Your task to perform on an android device: toggle location history Image 0: 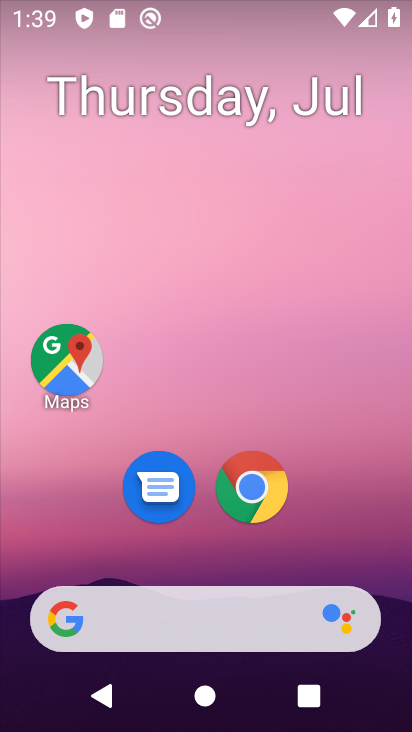
Step 0: click (244, 608)
Your task to perform on an android device: toggle location history Image 1: 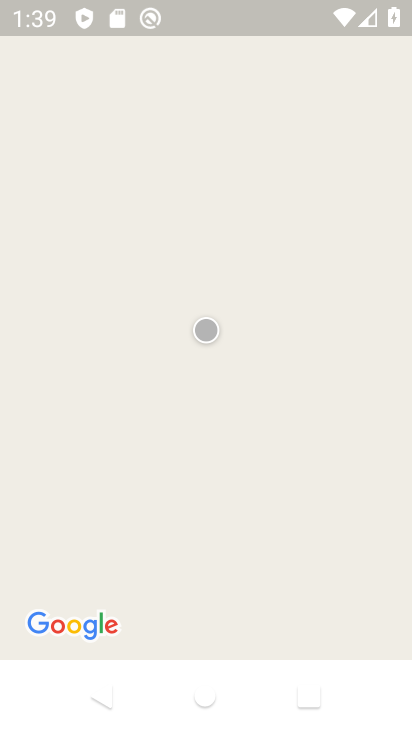
Step 1: press home button
Your task to perform on an android device: toggle location history Image 2: 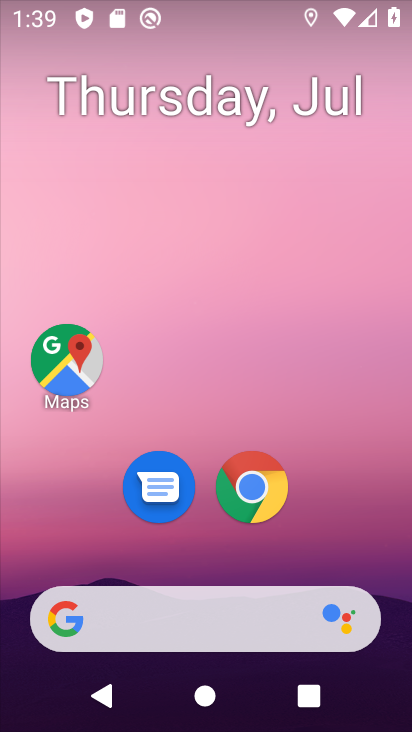
Step 2: drag from (381, 533) to (374, 36)
Your task to perform on an android device: toggle location history Image 3: 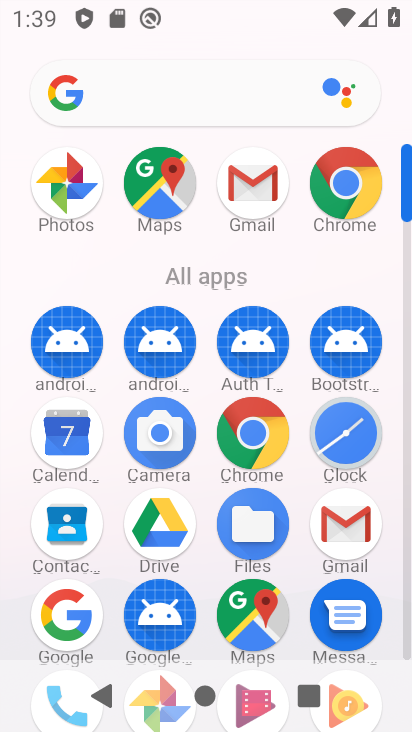
Step 3: drag from (387, 565) to (396, 264)
Your task to perform on an android device: toggle location history Image 4: 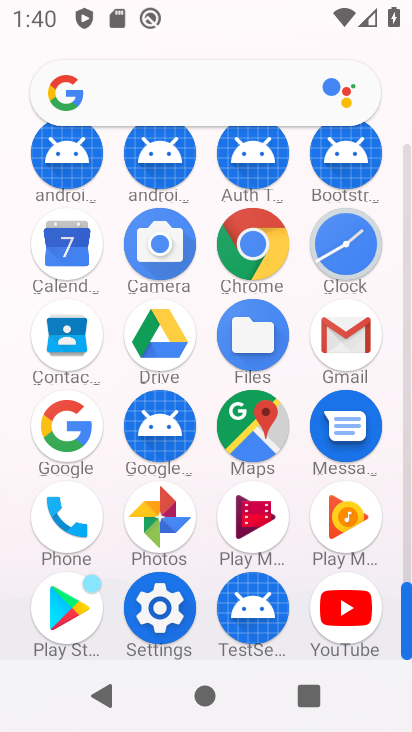
Step 4: click (164, 603)
Your task to perform on an android device: toggle location history Image 5: 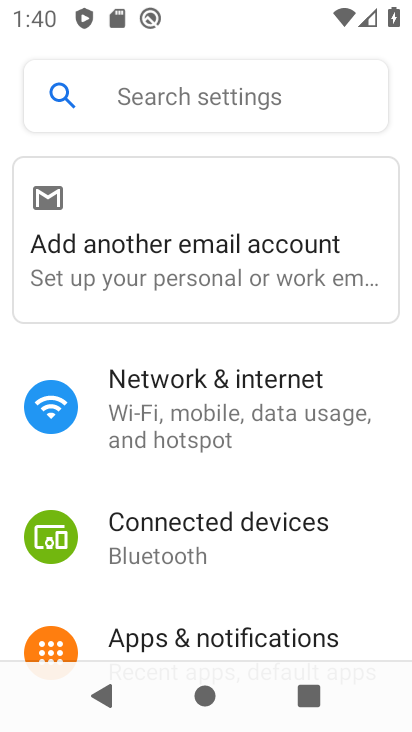
Step 5: drag from (379, 574) to (385, 351)
Your task to perform on an android device: toggle location history Image 6: 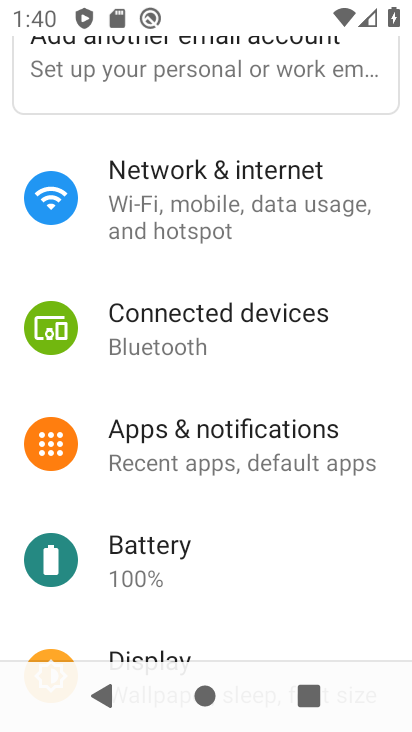
Step 6: drag from (341, 572) to (356, 324)
Your task to perform on an android device: toggle location history Image 7: 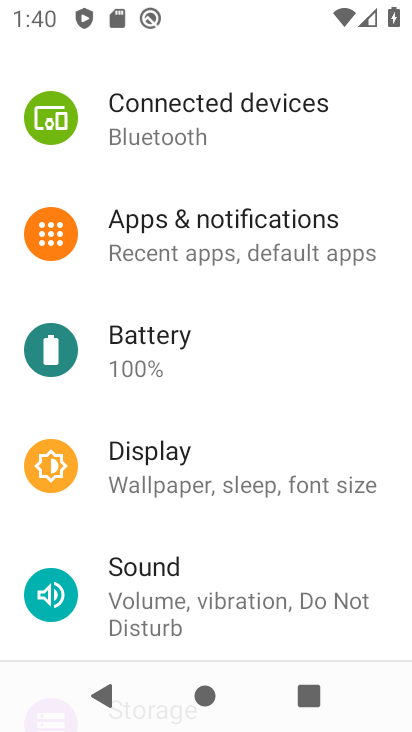
Step 7: drag from (355, 535) to (368, 246)
Your task to perform on an android device: toggle location history Image 8: 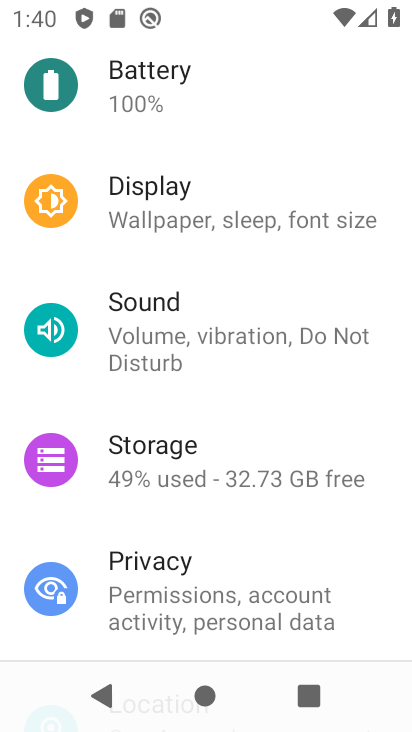
Step 8: drag from (371, 571) to (359, 347)
Your task to perform on an android device: toggle location history Image 9: 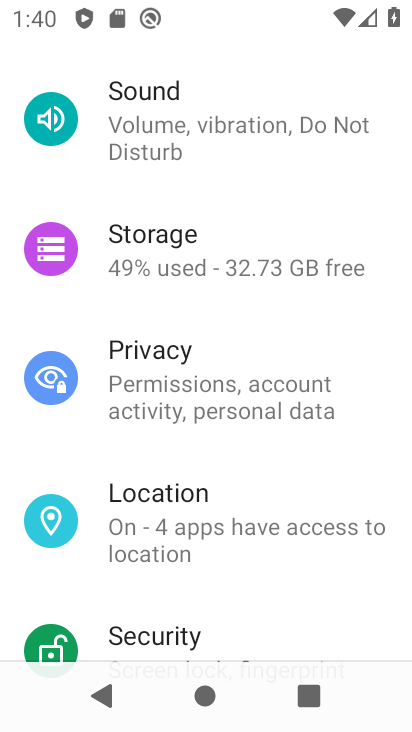
Step 9: click (335, 526)
Your task to perform on an android device: toggle location history Image 10: 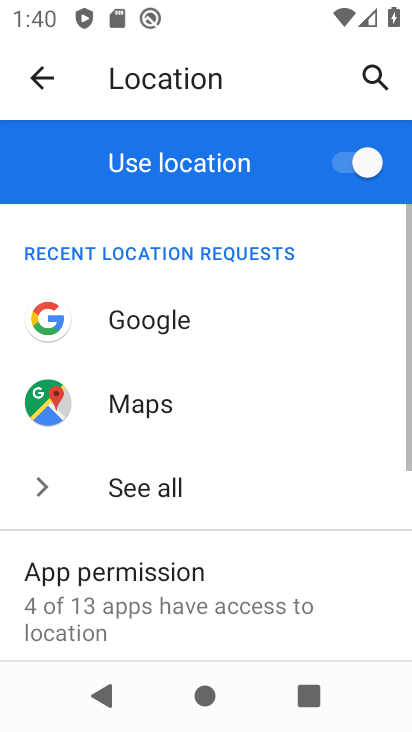
Step 10: drag from (335, 555) to (363, 291)
Your task to perform on an android device: toggle location history Image 11: 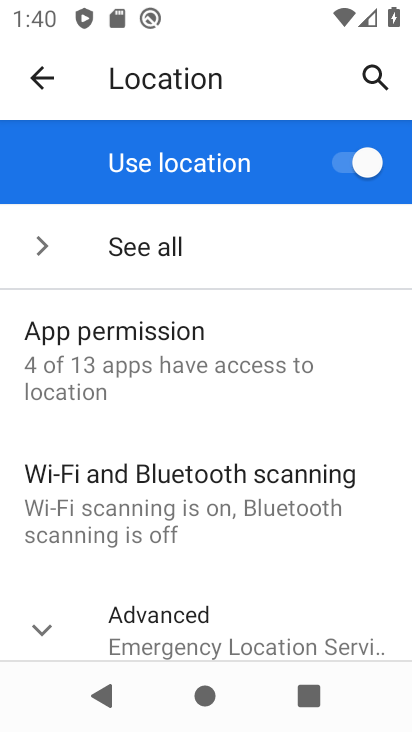
Step 11: drag from (344, 578) to (369, 362)
Your task to perform on an android device: toggle location history Image 12: 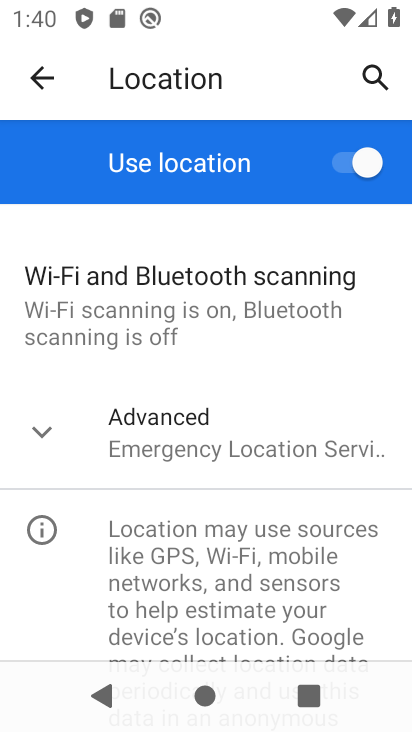
Step 12: click (331, 468)
Your task to perform on an android device: toggle location history Image 13: 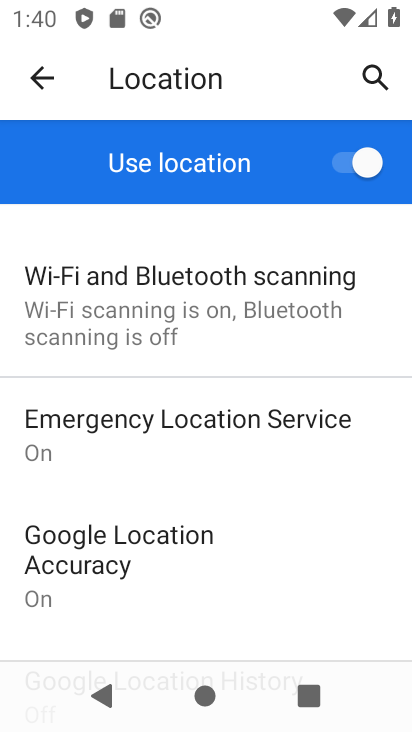
Step 13: drag from (347, 505) to (352, 354)
Your task to perform on an android device: toggle location history Image 14: 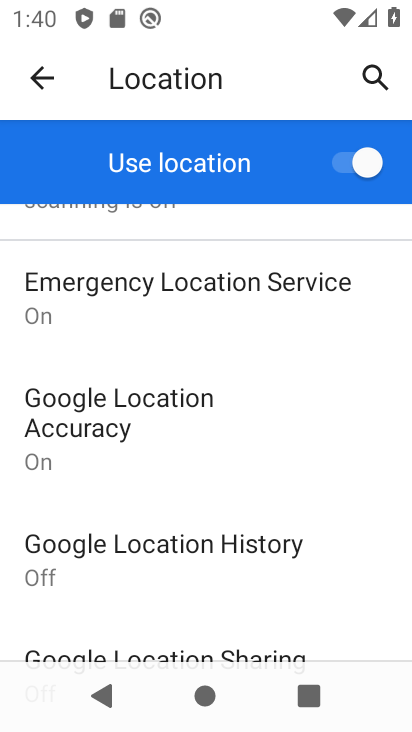
Step 14: drag from (336, 552) to (347, 349)
Your task to perform on an android device: toggle location history Image 15: 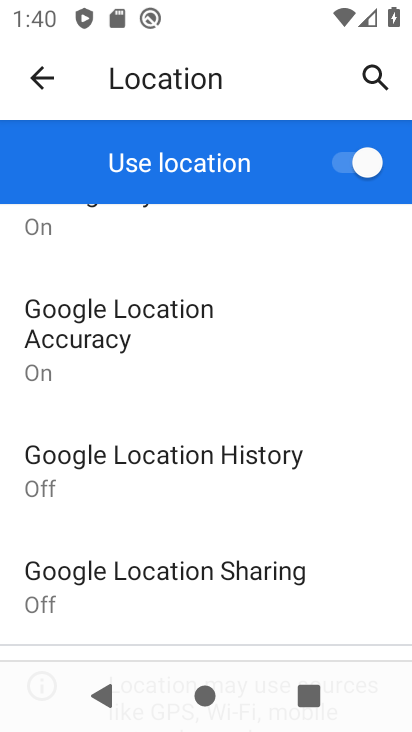
Step 15: click (266, 485)
Your task to perform on an android device: toggle location history Image 16: 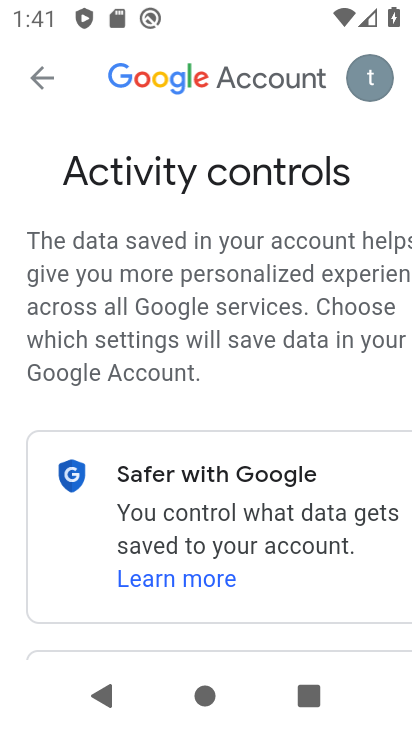
Step 16: task complete